Your task to perform on an android device: Go to Google maps Image 0: 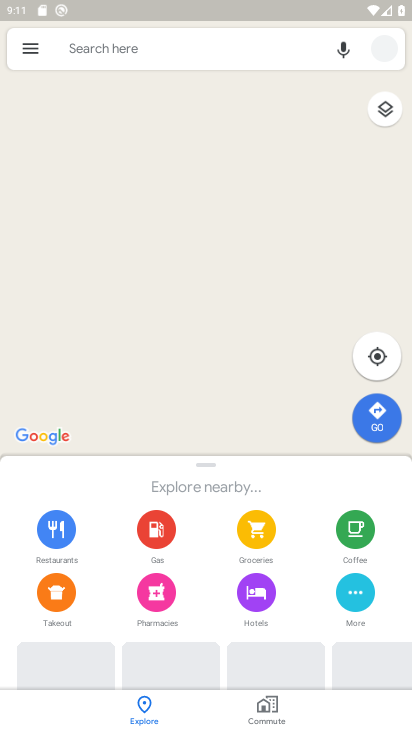
Step 0: press home button
Your task to perform on an android device: Go to Google maps Image 1: 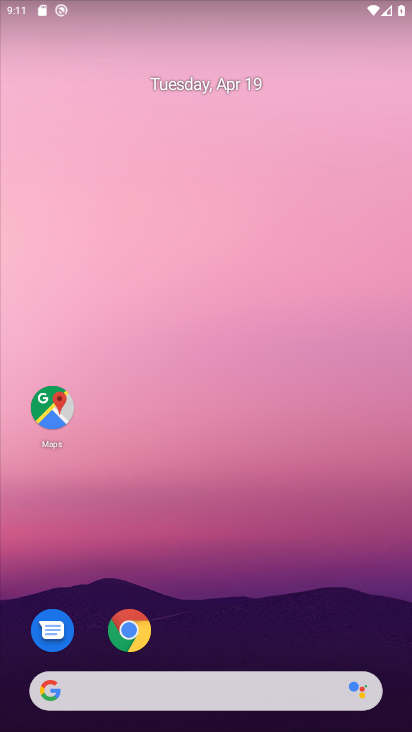
Step 1: drag from (218, 660) to (255, 96)
Your task to perform on an android device: Go to Google maps Image 2: 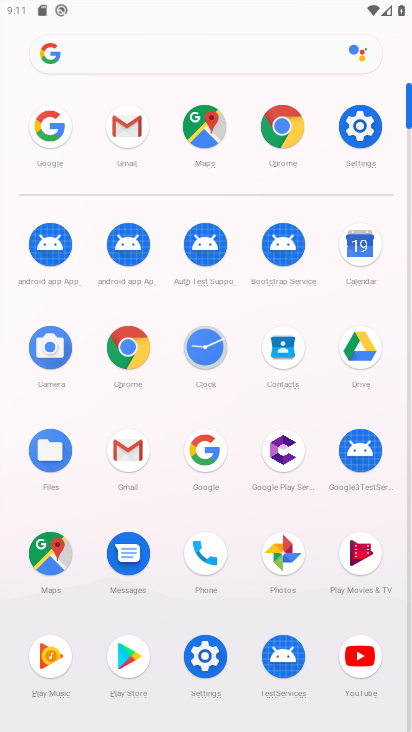
Step 2: click (54, 558)
Your task to perform on an android device: Go to Google maps Image 3: 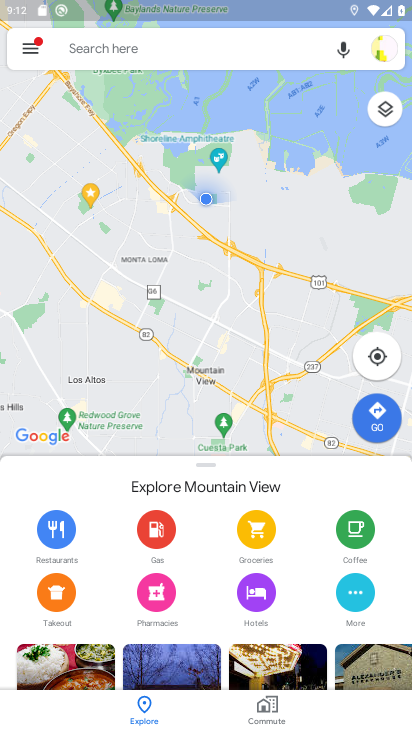
Step 3: task complete